Your task to perform on an android device: turn off smart reply in the gmail app Image 0: 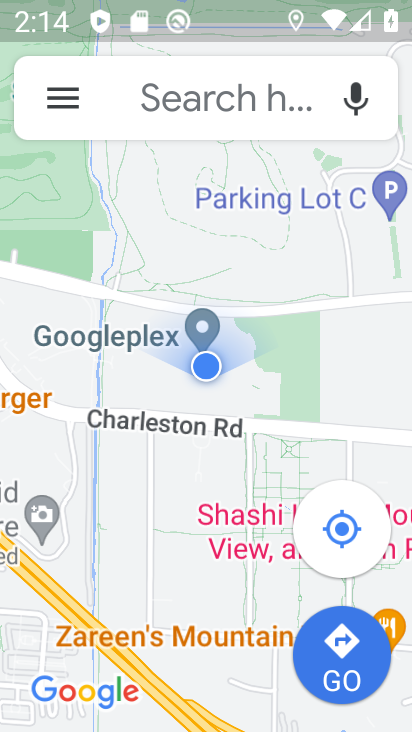
Step 0: press home button
Your task to perform on an android device: turn off smart reply in the gmail app Image 1: 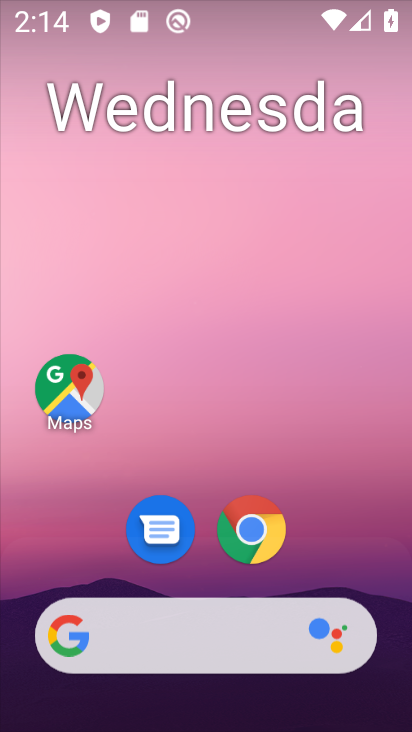
Step 1: drag from (368, 595) to (404, 554)
Your task to perform on an android device: turn off smart reply in the gmail app Image 2: 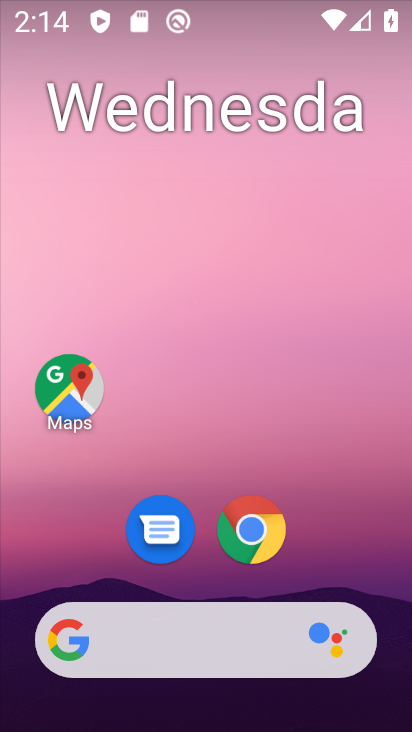
Step 2: click (254, 210)
Your task to perform on an android device: turn off smart reply in the gmail app Image 3: 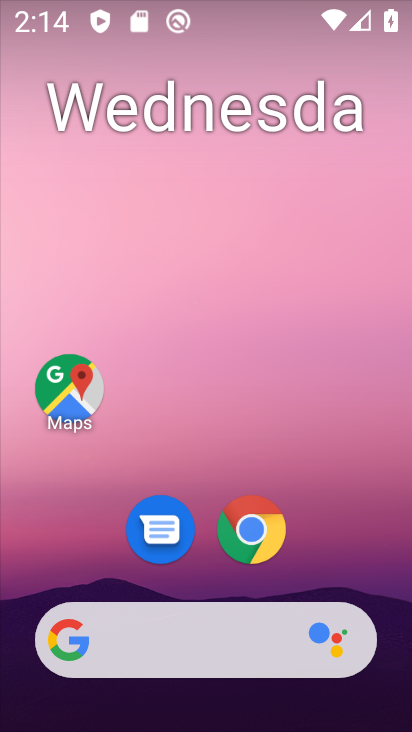
Step 3: drag from (361, 561) to (316, 2)
Your task to perform on an android device: turn off smart reply in the gmail app Image 4: 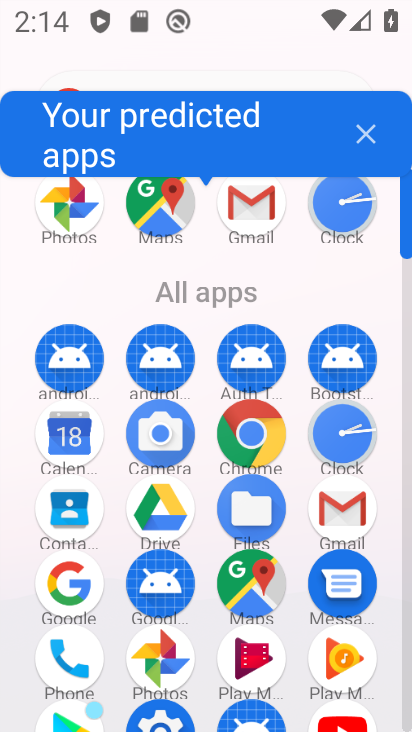
Step 4: click (251, 209)
Your task to perform on an android device: turn off smart reply in the gmail app Image 5: 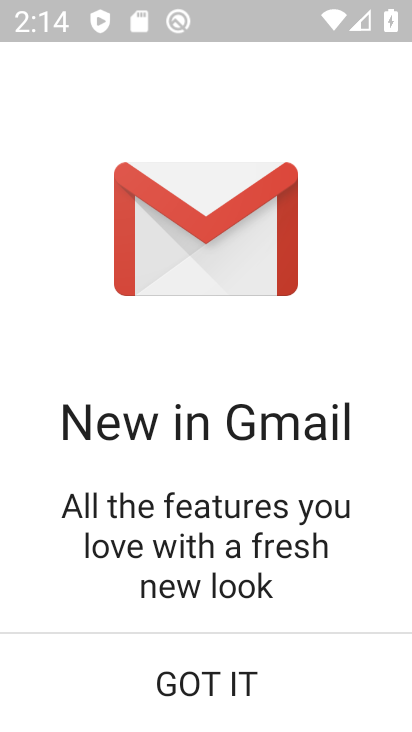
Step 5: click (162, 681)
Your task to perform on an android device: turn off smart reply in the gmail app Image 6: 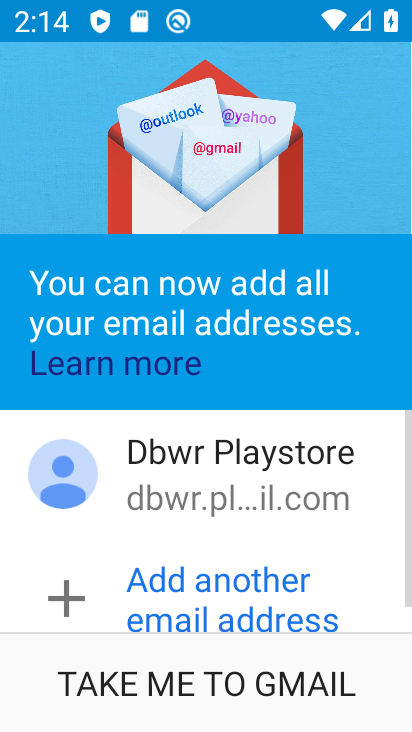
Step 6: click (165, 679)
Your task to perform on an android device: turn off smart reply in the gmail app Image 7: 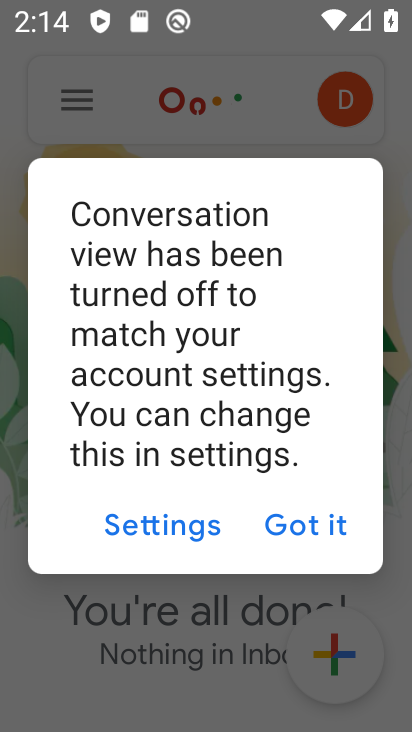
Step 7: click (316, 530)
Your task to perform on an android device: turn off smart reply in the gmail app Image 8: 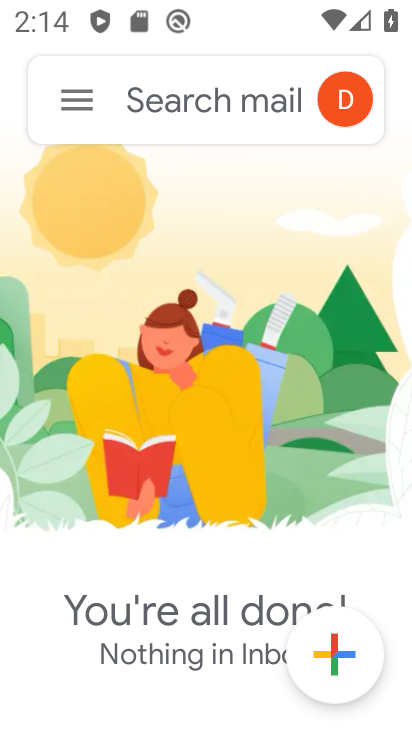
Step 8: click (72, 101)
Your task to perform on an android device: turn off smart reply in the gmail app Image 9: 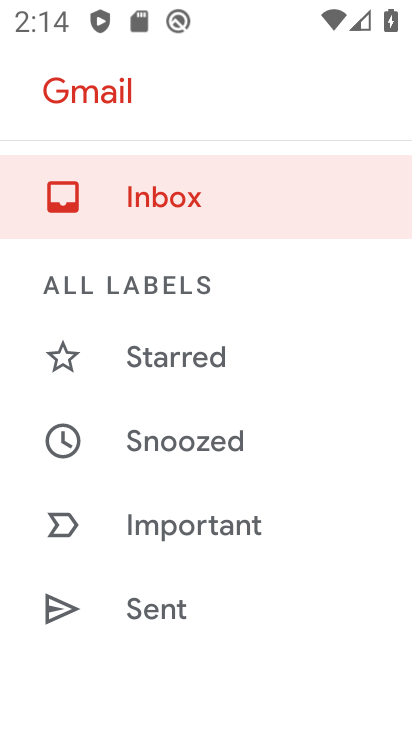
Step 9: drag from (204, 539) to (175, 161)
Your task to perform on an android device: turn off smart reply in the gmail app Image 10: 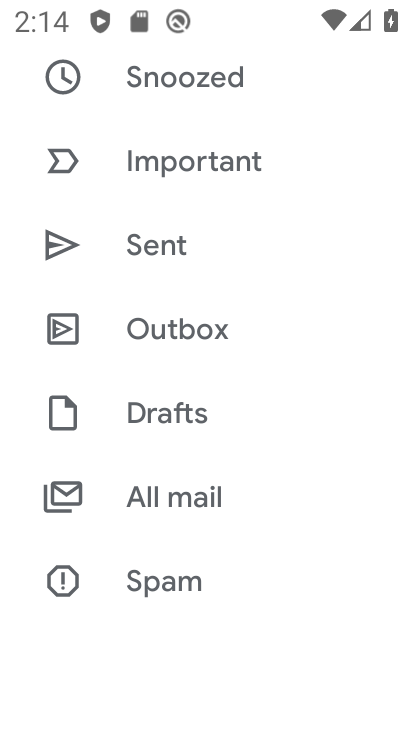
Step 10: drag from (238, 500) to (229, 142)
Your task to perform on an android device: turn off smart reply in the gmail app Image 11: 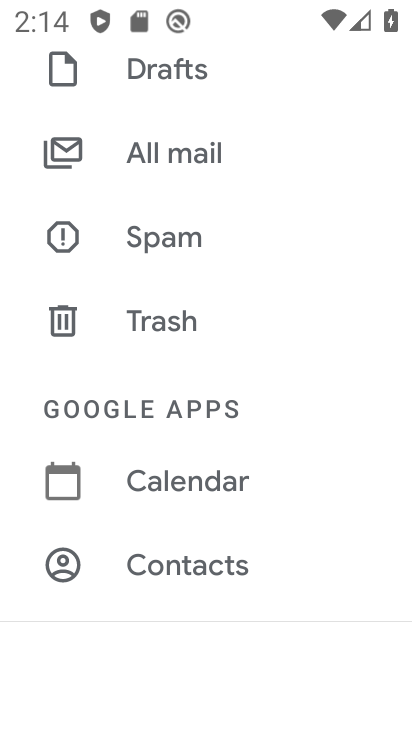
Step 11: drag from (294, 574) to (234, 236)
Your task to perform on an android device: turn off smart reply in the gmail app Image 12: 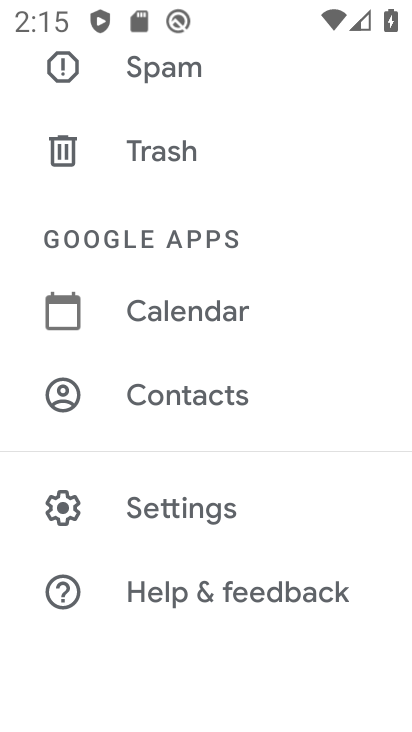
Step 12: click (182, 511)
Your task to perform on an android device: turn off smart reply in the gmail app Image 13: 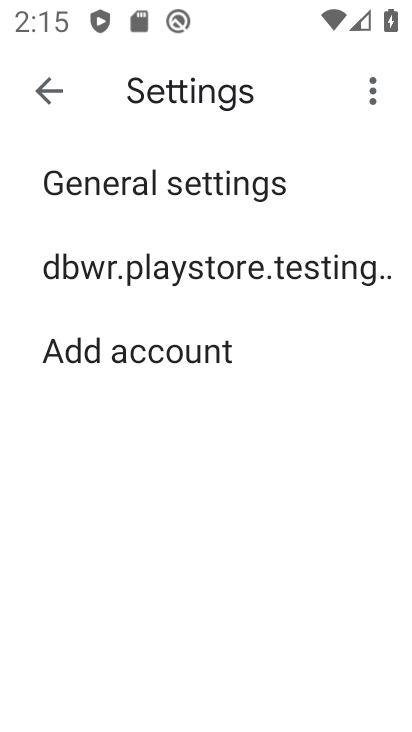
Step 13: click (159, 276)
Your task to perform on an android device: turn off smart reply in the gmail app Image 14: 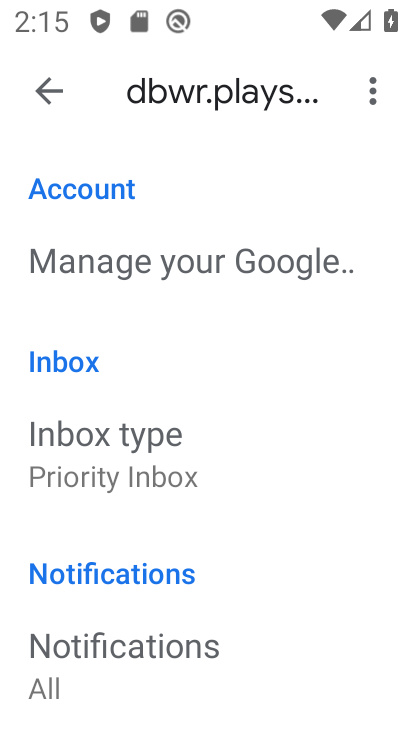
Step 14: drag from (239, 641) to (224, 171)
Your task to perform on an android device: turn off smart reply in the gmail app Image 15: 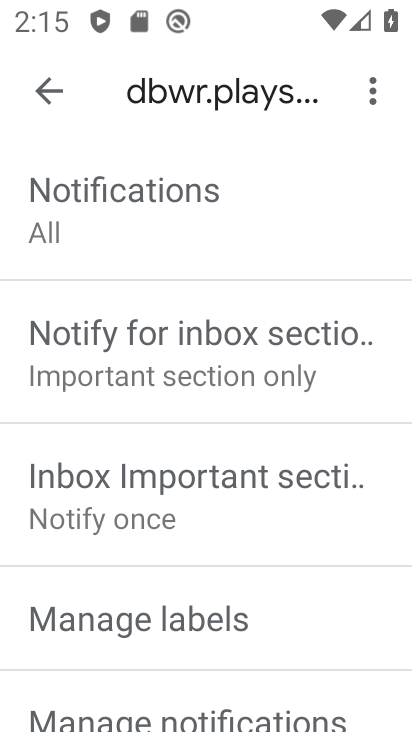
Step 15: drag from (238, 565) to (235, 183)
Your task to perform on an android device: turn off smart reply in the gmail app Image 16: 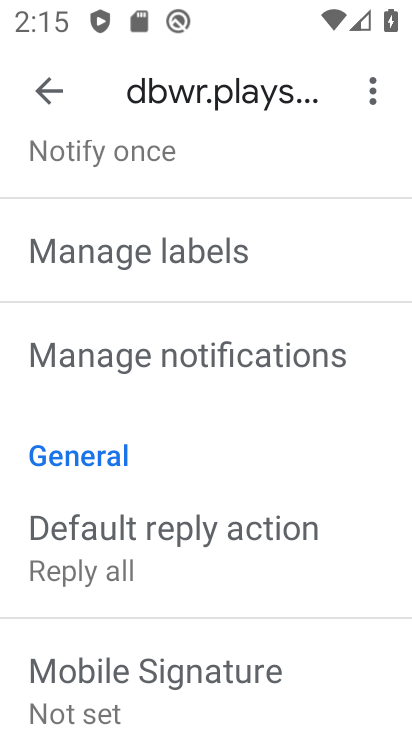
Step 16: drag from (198, 468) to (155, 167)
Your task to perform on an android device: turn off smart reply in the gmail app Image 17: 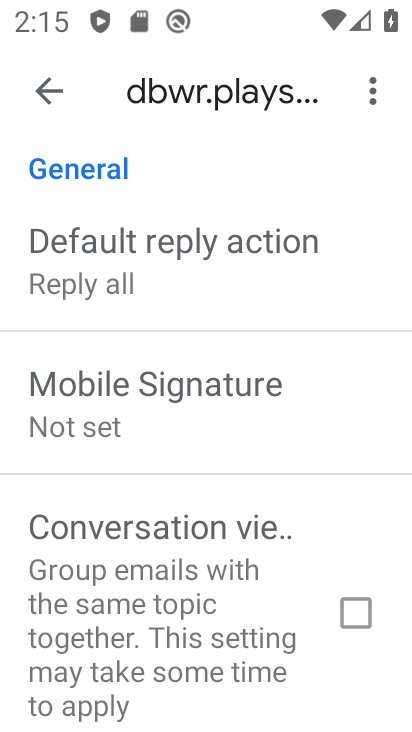
Step 17: drag from (170, 515) to (187, 153)
Your task to perform on an android device: turn off smart reply in the gmail app Image 18: 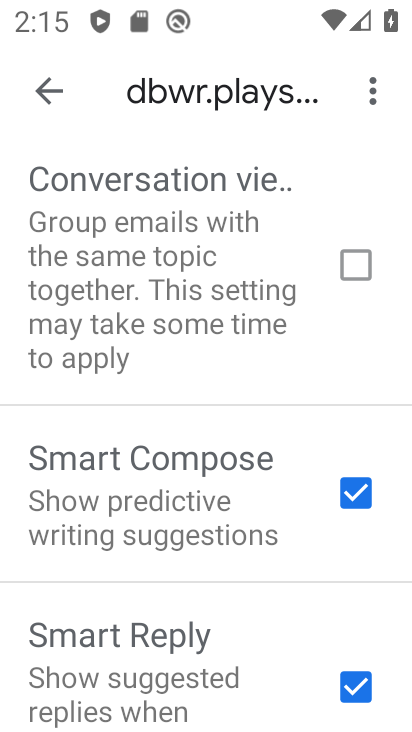
Step 18: drag from (163, 535) to (167, 234)
Your task to perform on an android device: turn off smart reply in the gmail app Image 19: 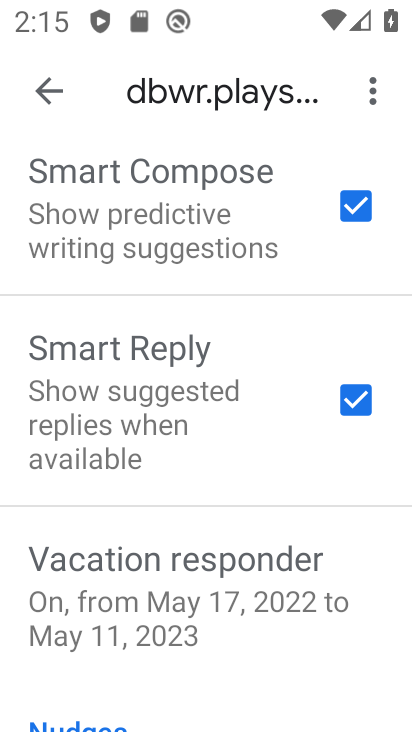
Step 19: click (350, 403)
Your task to perform on an android device: turn off smart reply in the gmail app Image 20: 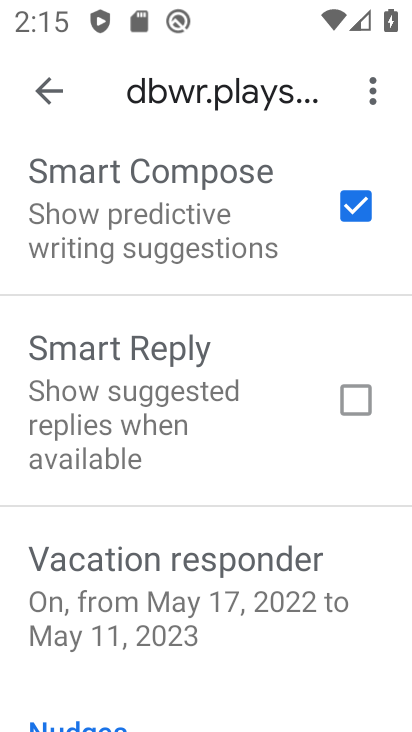
Step 20: task complete